Your task to perform on an android device: turn pop-ups off in chrome Image 0: 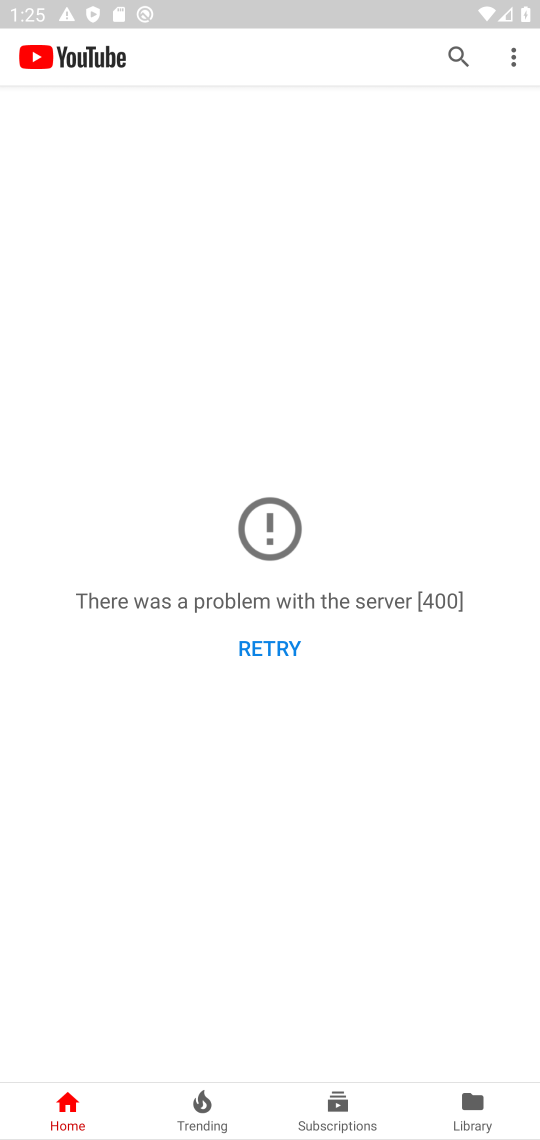
Step 0: press home button
Your task to perform on an android device: turn pop-ups off in chrome Image 1: 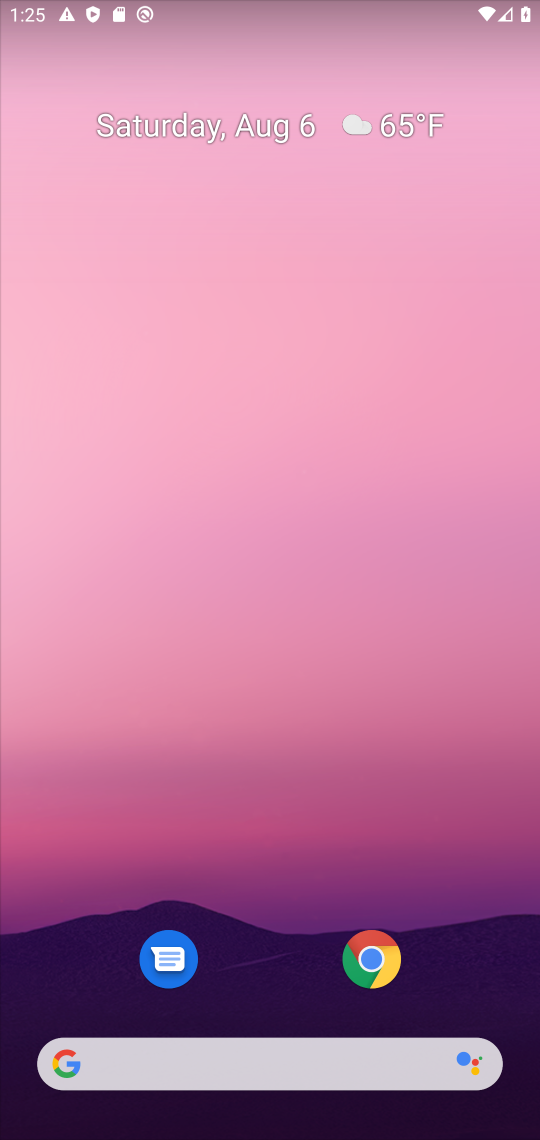
Step 1: click (386, 953)
Your task to perform on an android device: turn pop-ups off in chrome Image 2: 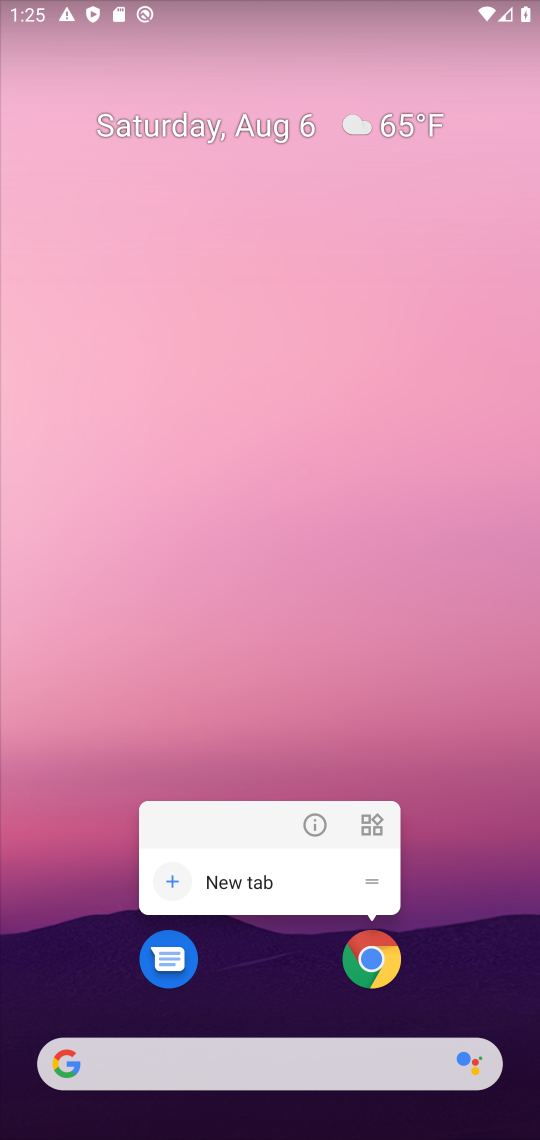
Step 2: click (355, 971)
Your task to perform on an android device: turn pop-ups off in chrome Image 3: 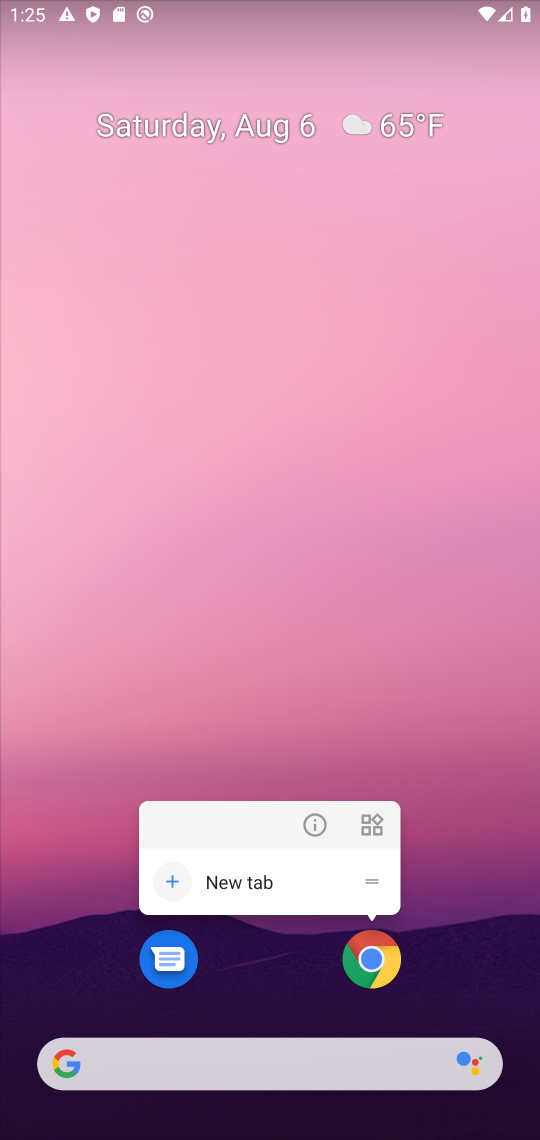
Step 3: click (373, 960)
Your task to perform on an android device: turn pop-ups off in chrome Image 4: 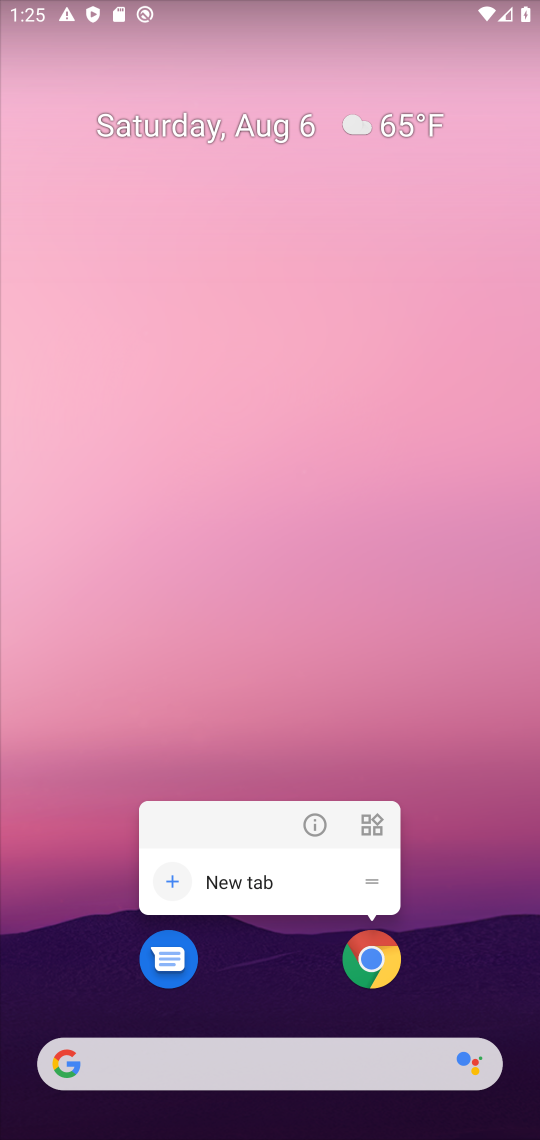
Step 4: click (396, 957)
Your task to perform on an android device: turn pop-ups off in chrome Image 5: 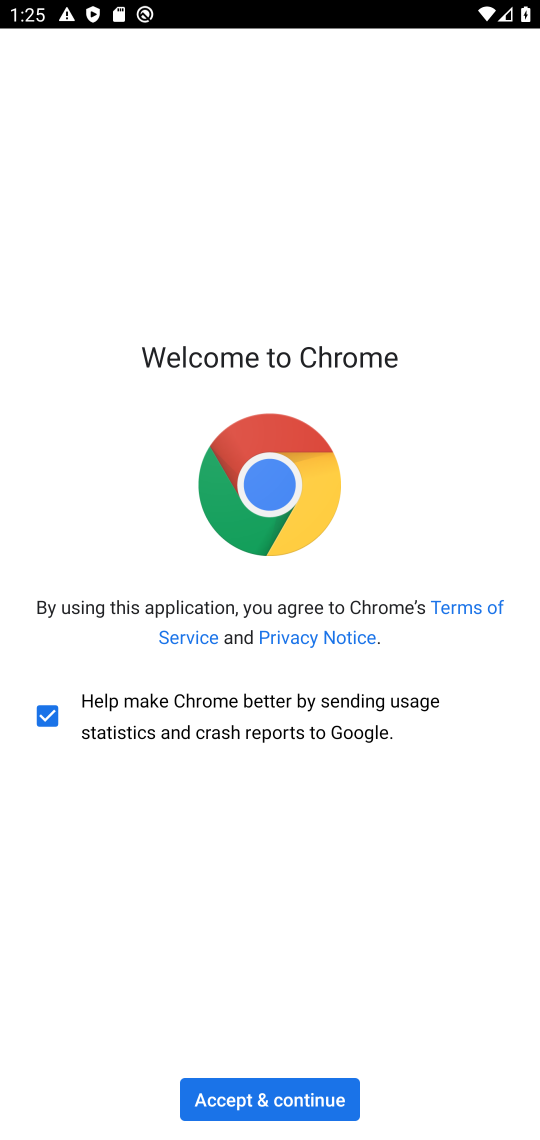
Step 5: click (279, 1094)
Your task to perform on an android device: turn pop-ups off in chrome Image 6: 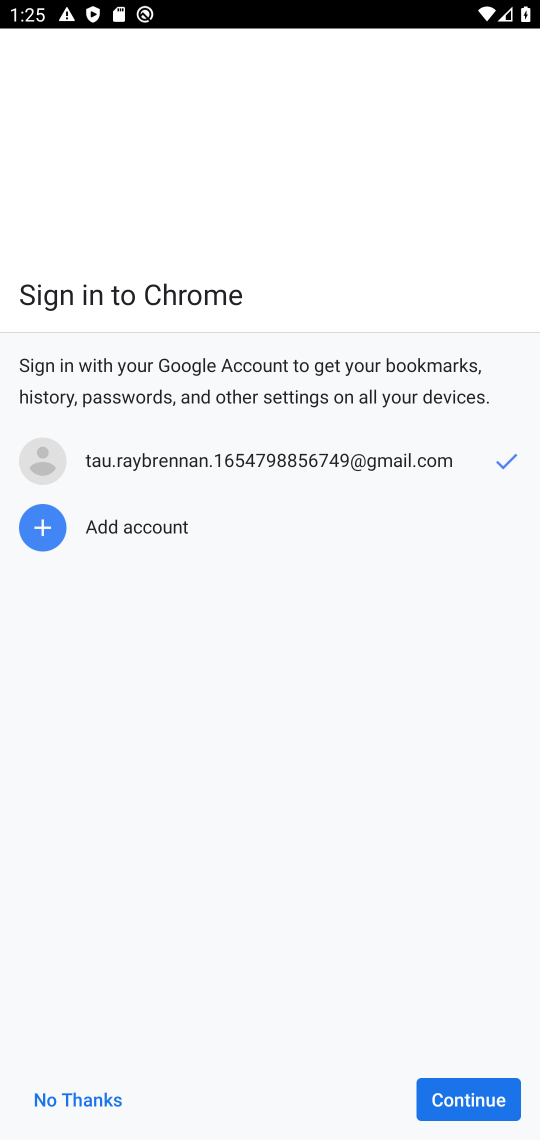
Step 6: click (462, 1106)
Your task to perform on an android device: turn pop-ups off in chrome Image 7: 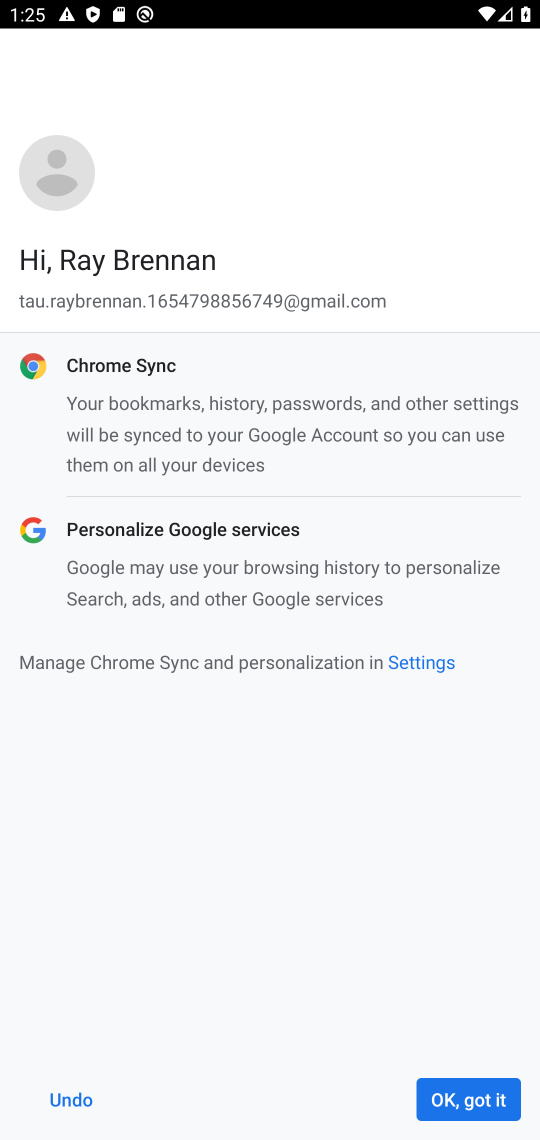
Step 7: click (462, 1108)
Your task to perform on an android device: turn pop-ups off in chrome Image 8: 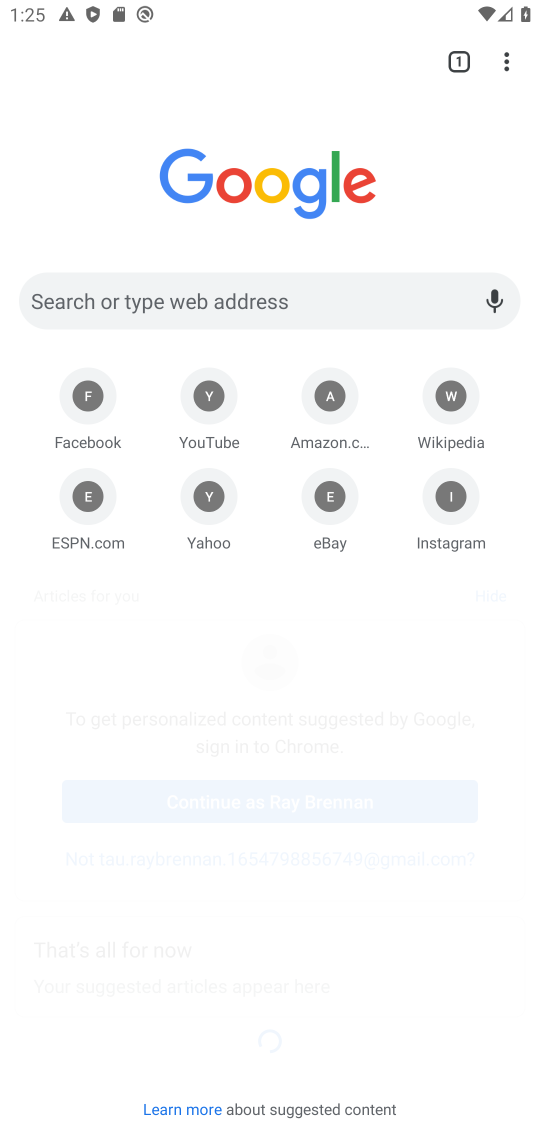
Step 8: click (506, 58)
Your task to perform on an android device: turn pop-ups off in chrome Image 9: 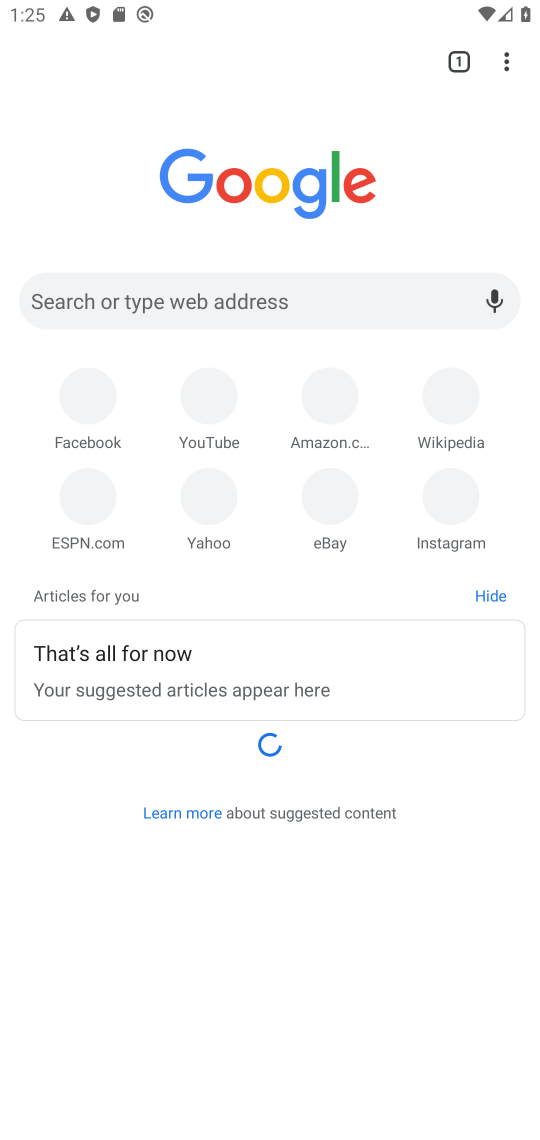
Step 9: click (509, 59)
Your task to perform on an android device: turn pop-ups off in chrome Image 10: 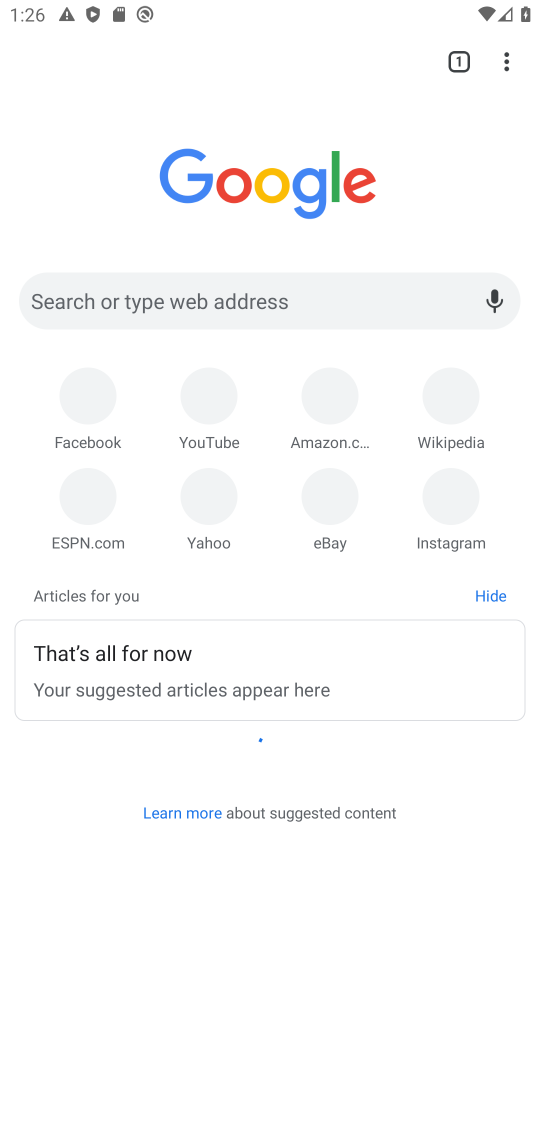
Step 10: click (511, 52)
Your task to perform on an android device: turn pop-ups off in chrome Image 11: 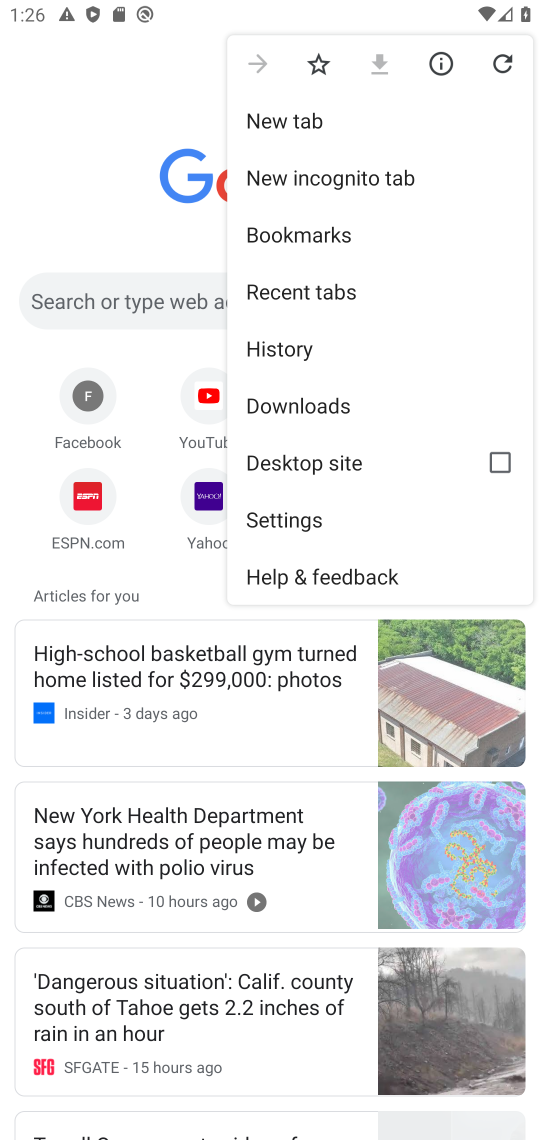
Step 11: click (358, 508)
Your task to perform on an android device: turn pop-ups off in chrome Image 12: 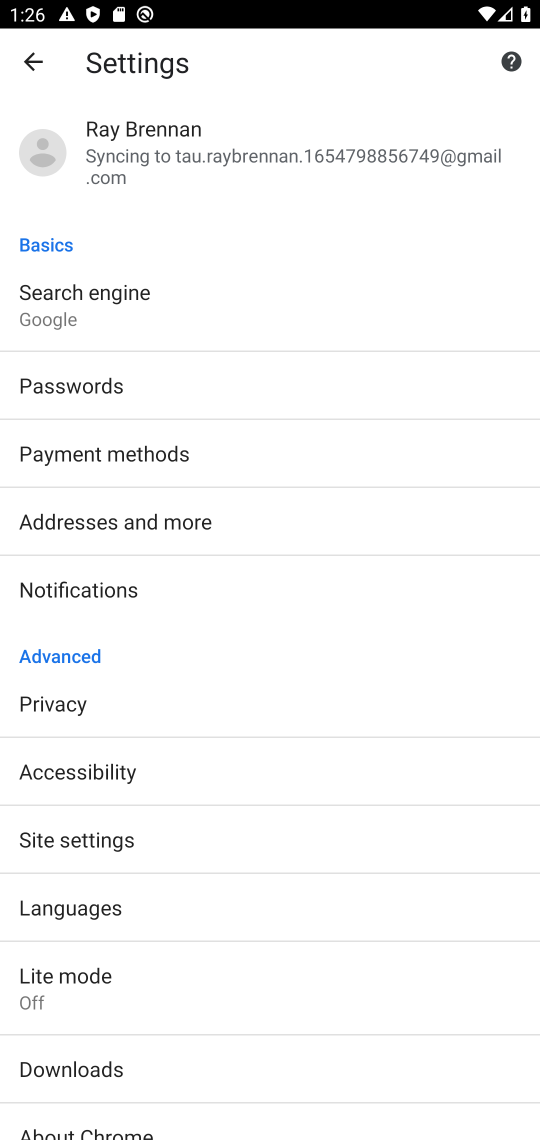
Step 12: click (116, 628)
Your task to perform on an android device: turn pop-ups off in chrome Image 13: 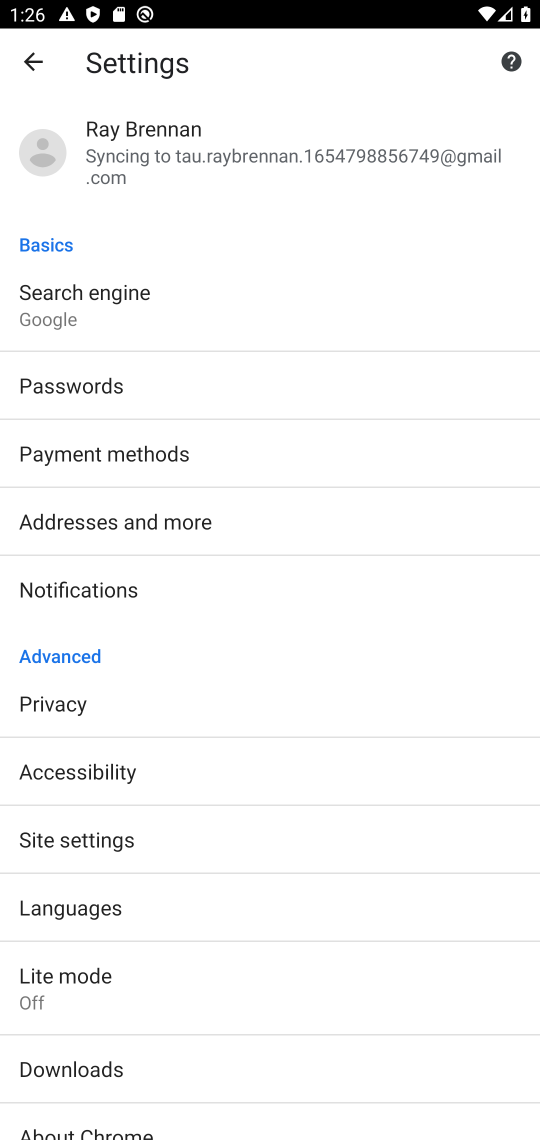
Step 13: click (63, 840)
Your task to perform on an android device: turn pop-ups off in chrome Image 14: 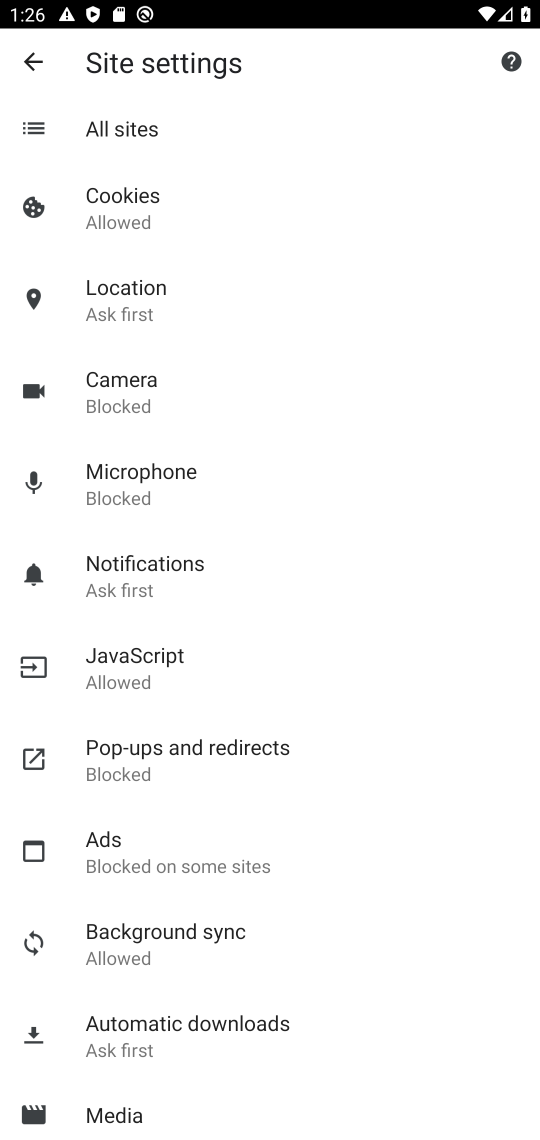
Step 14: click (147, 765)
Your task to perform on an android device: turn pop-ups off in chrome Image 15: 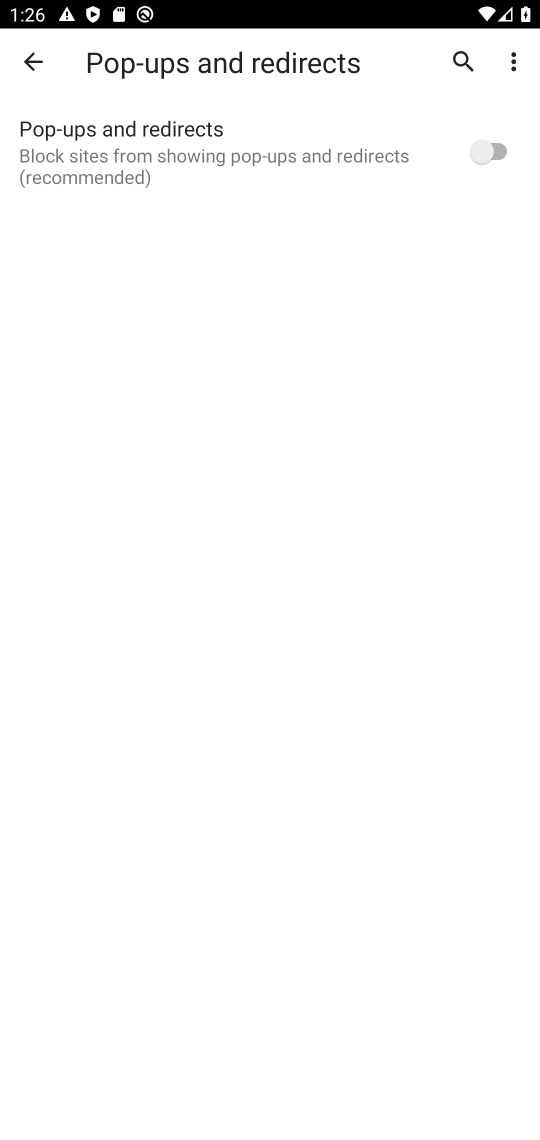
Step 15: task complete